Your task to perform on an android device: Open Google Chrome and open the bookmarks view Image 0: 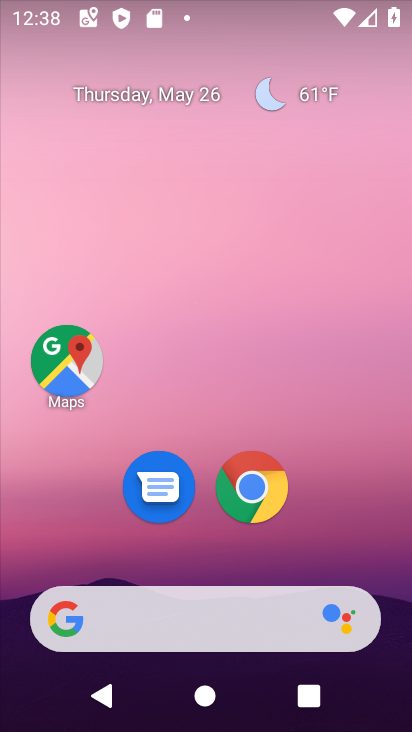
Step 0: click (234, 344)
Your task to perform on an android device: Open Google Chrome and open the bookmarks view Image 1: 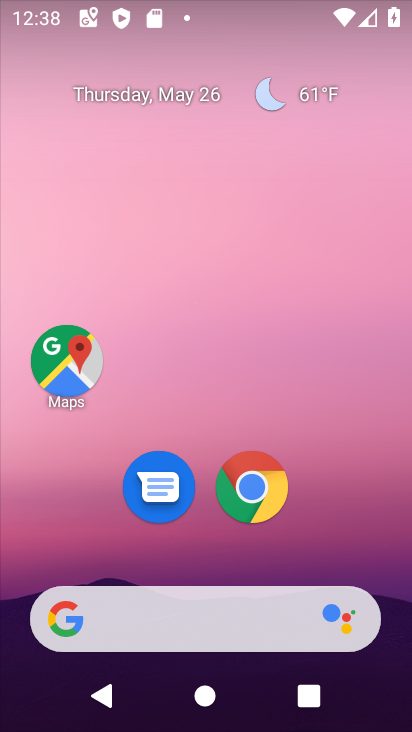
Step 1: drag from (270, 653) to (131, 163)
Your task to perform on an android device: Open Google Chrome and open the bookmarks view Image 2: 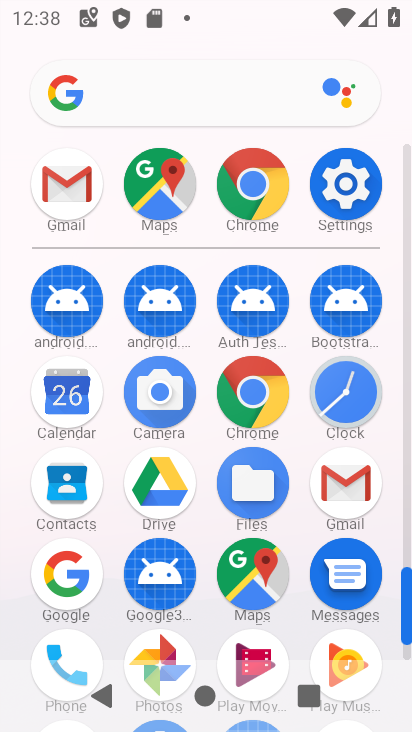
Step 2: click (247, 183)
Your task to perform on an android device: Open Google Chrome and open the bookmarks view Image 3: 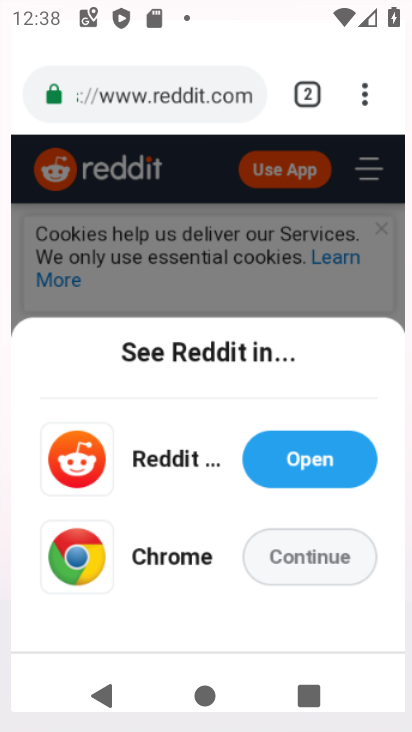
Step 3: click (251, 182)
Your task to perform on an android device: Open Google Chrome and open the bookmarks view Image 4: 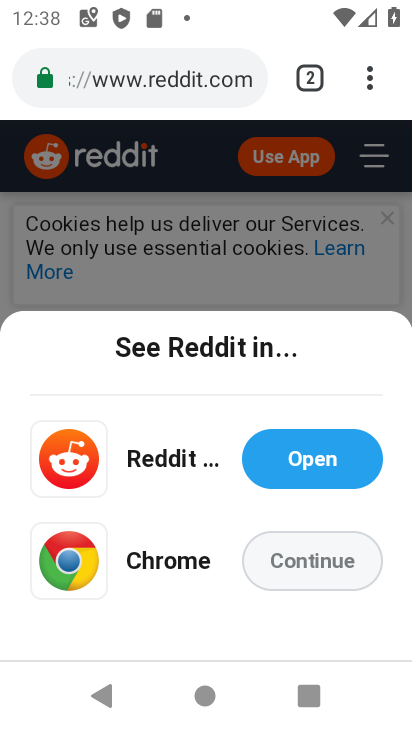
Step 4: drag from (370, 79) to (73, 296)
Your task to perform on an android device: Open Google Chrome and open the bookmarks view Image 5: 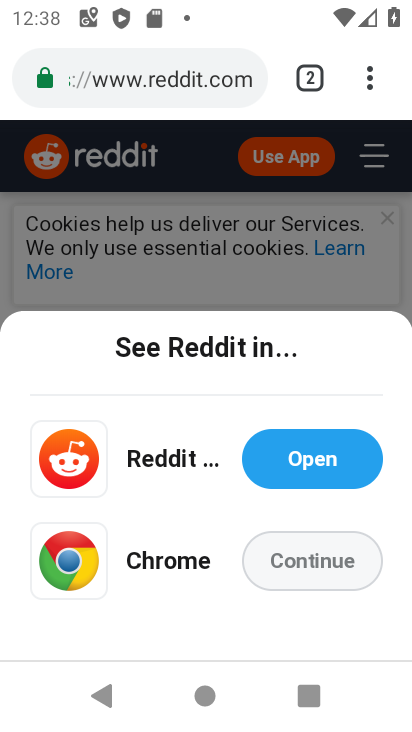
Step 5: click (73, 297)
Your task to perform on an android device: Open Google Chrome and open the bookmarks view Image 6: 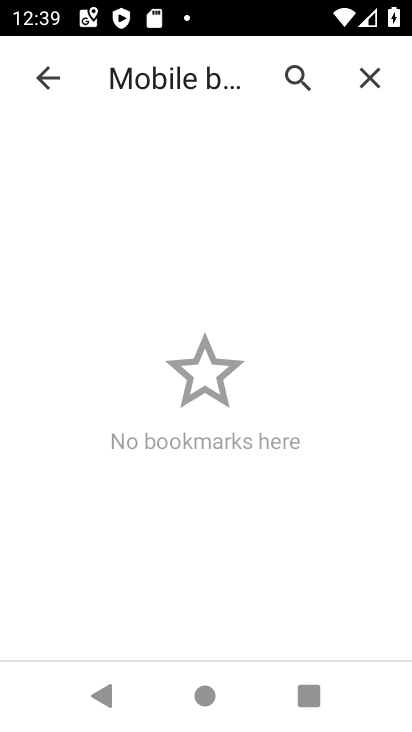
Step 6: task complete